Your task to perform on an android device: Show me popular videos on Youtube Image 0: 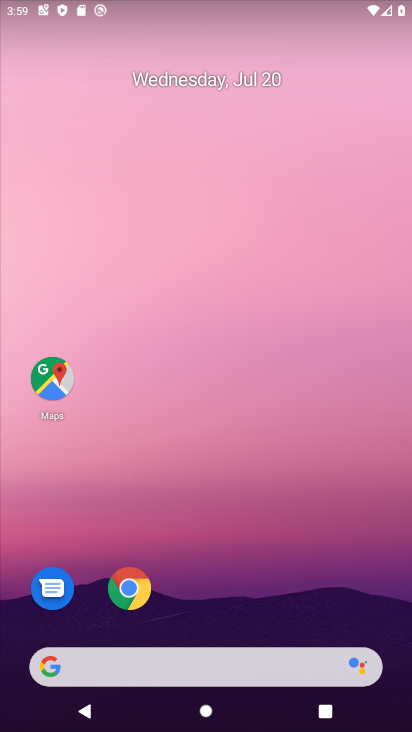
Step 0: drag from (250, 589) to (250, 62)
Your task to perform on an android device: Show me popular videos on Youtube Image 1: 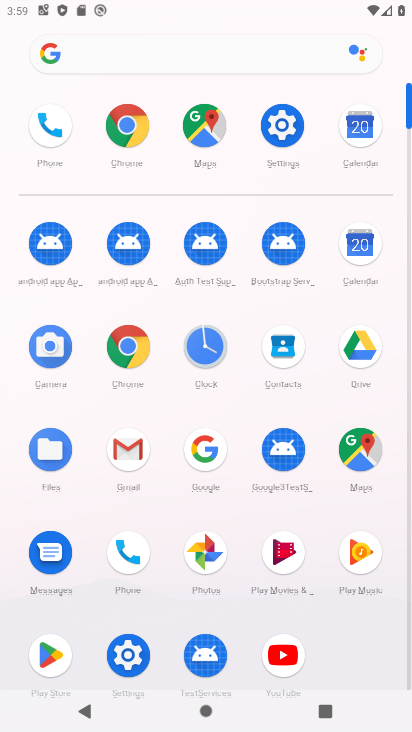
Step 1: click (288, 650)
Your task to perform on an android device: Show me popular videos on Youtube Image 2: 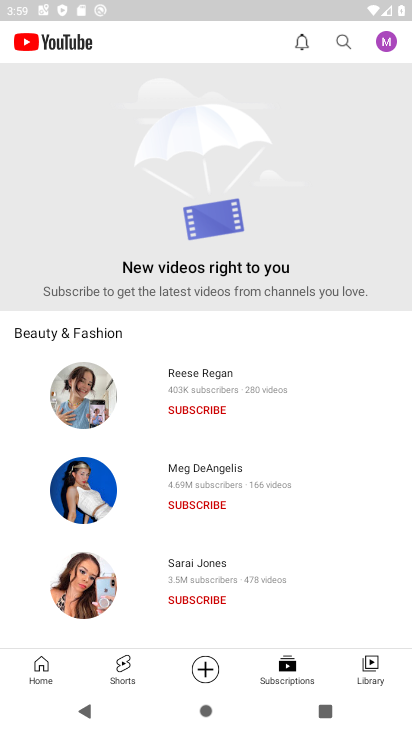
Step 2: click (63, 667)
Your task to perform on an android device: Show me popular videos on Youtube Image 3: 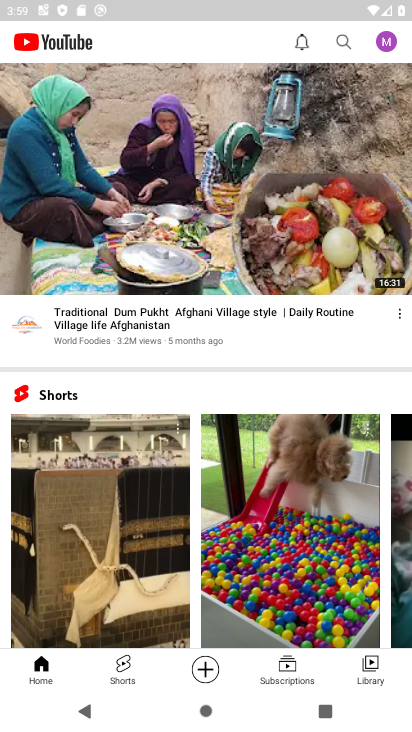
Step 3: drag from (178, 153) to (182, 579)
Your task to perform on an android device: Show me popular videos on Youtube Image 4: 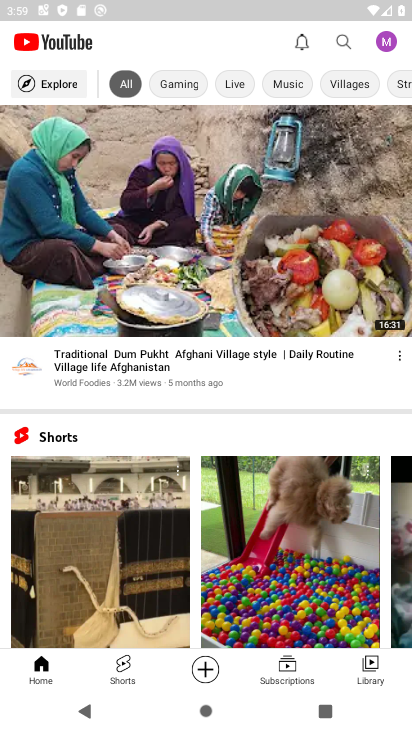
Step 4: click (57, 81)
Your task to perform on an android device: Show me popular videos on Youtube Image 5: 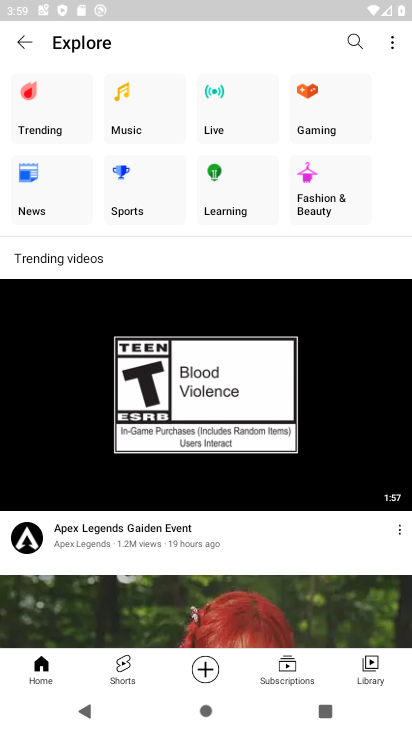
Step 5: task complete